Your task to perform on an android device: Open accessibility settings Image 0: 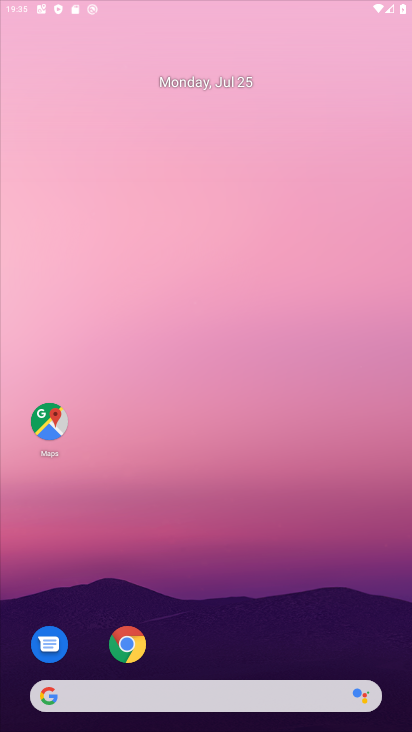
Step 0: press home button
Your task to perform on an android device: Open accessibility settings Image 1: 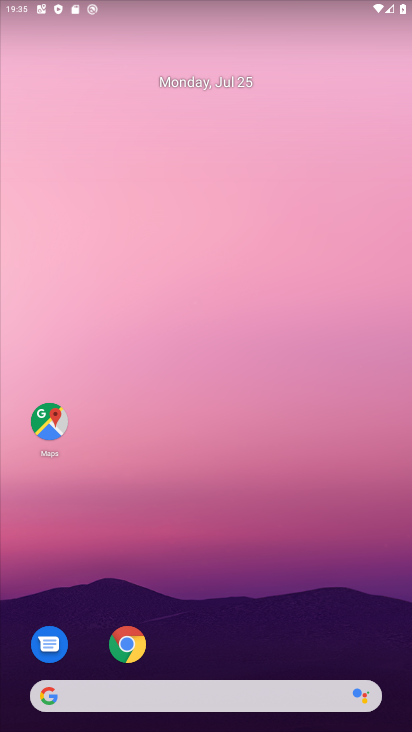
Step 1: drag from (222, 672) to (246, 40)
Your task to perform on an android device: Open accessibility settings Image 2: 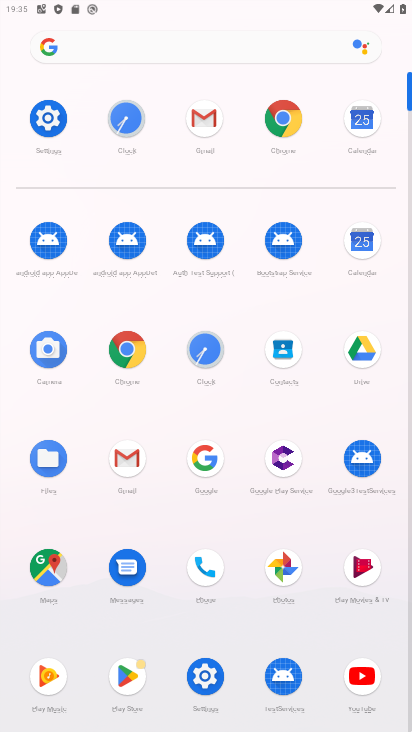
Step 2: click (46, 111)
Your task to perform on an android device: Open accessibility settings Image 3: 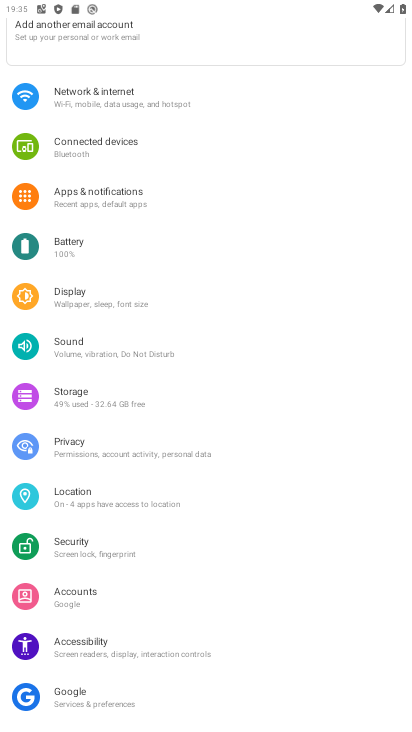
Step 3: click (115, 637)
Your task to perform on an android device: Open accessibility settings Image 4: 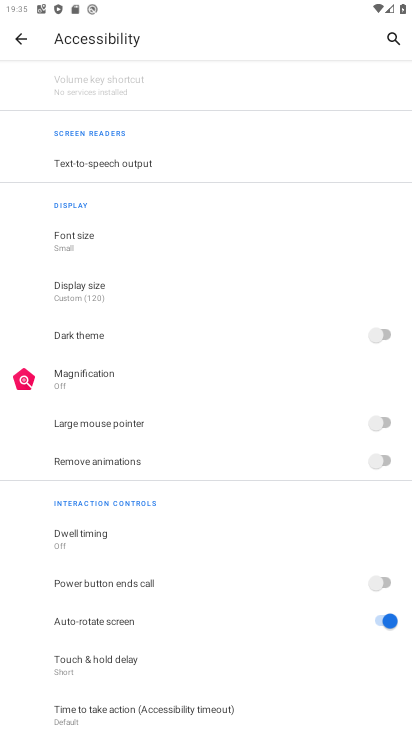
Step 4: task complete